Your task to perform on an android device: Open maps Image 0: 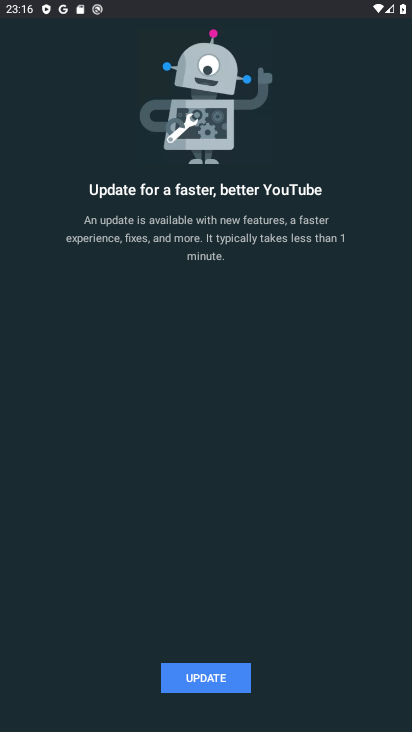
Step 0: press home button
Your task to perform on an android device: Open maps Image 1: 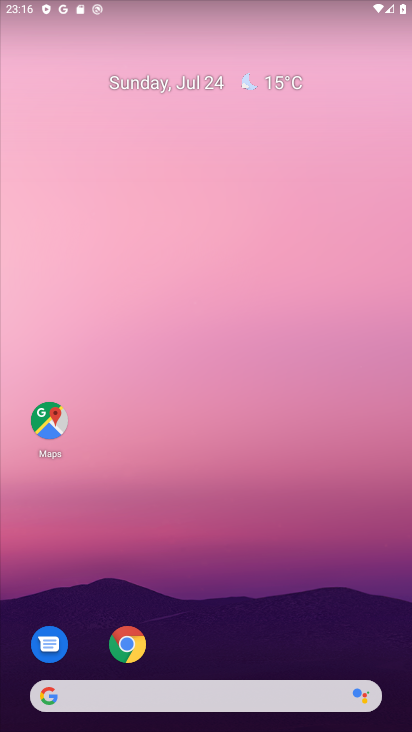
Step 1: drag from (209, 728) to (145, 136)
Your task to perform on an android device: Open maps Image 2: 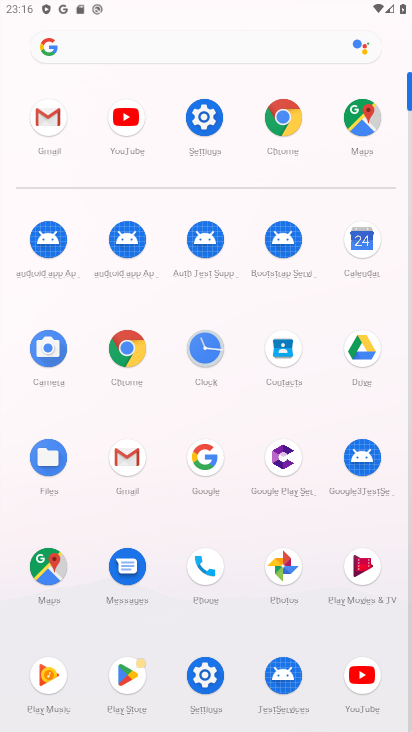
Step 2: click (44, 563)
Your task to perform on an android device: Open maps Image 3: 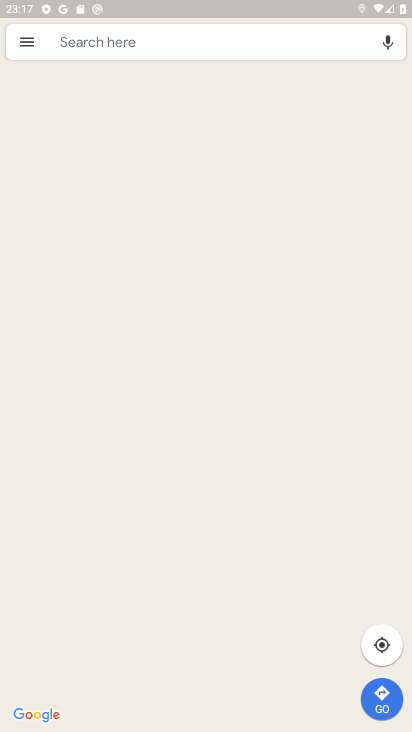
Step 3: task complete